Your task to perform on an android device: toggle pop-ups in chrome Image 0: 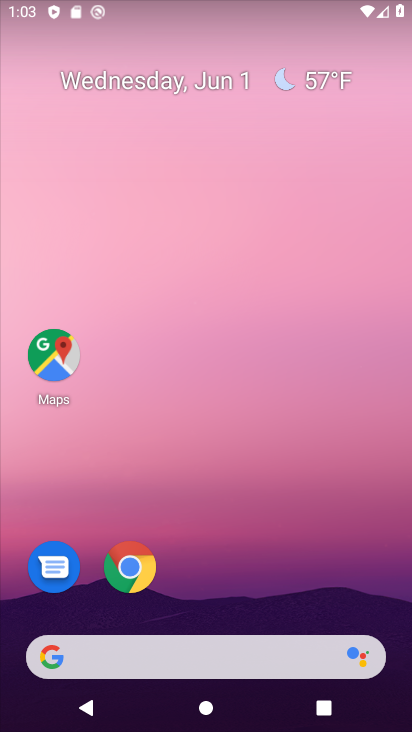
Step 0: click (131, 556)
Your task to perform on an android device: toggle pop-ups in chrome Image 1: 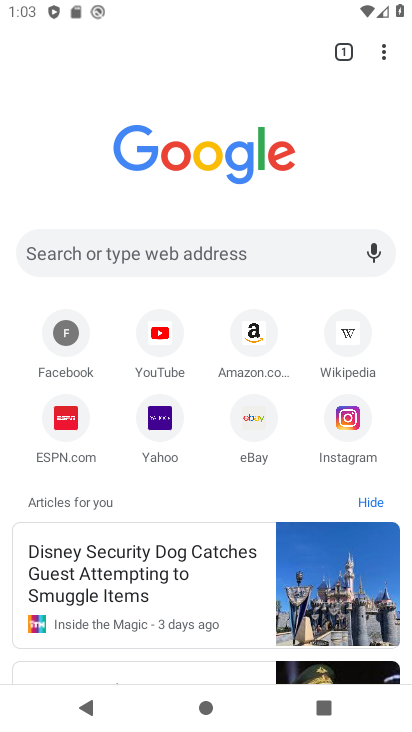
Step 1: click (374, 54)
Your task to perform on an android device: toggle pop-ups in chrome Image 2: 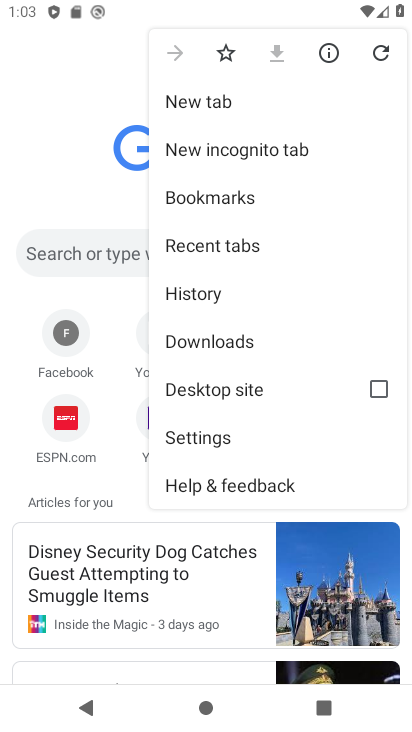
Step 2: click (196, 444)
Your task to perform on an android device: toggle pop-ups in chrome Image 3: 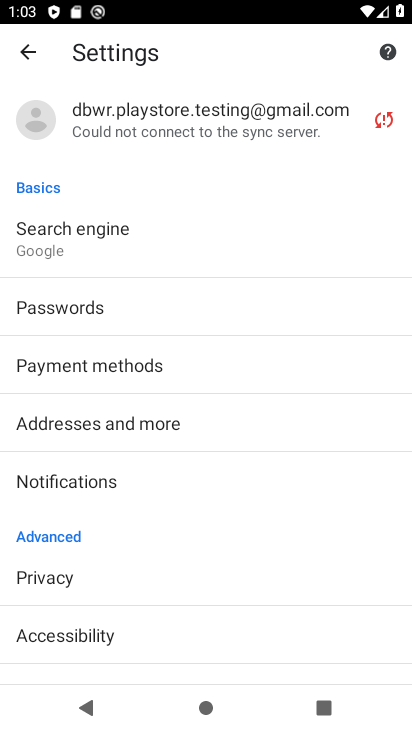
Step 3: drag from (233, 610) to (158, 363)
Your task to perform on an android device: toggle pop-ups in chrome Image 4: 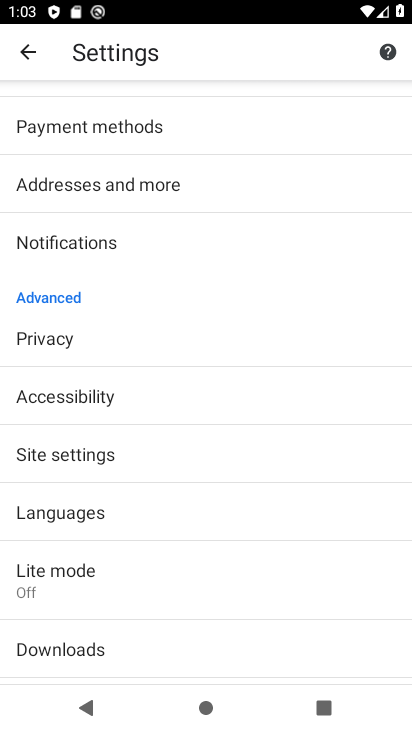
Step 4: click (94, 460)
Your task to perform on an android device: toggle pop-ups in chrome Image 5: 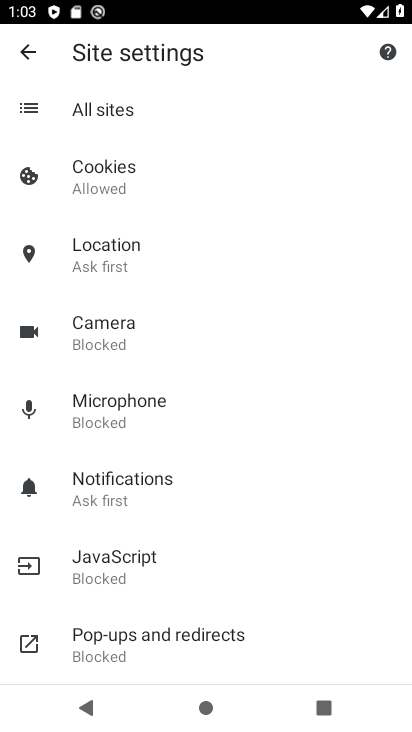
Step 5: click (177, 646)
Your task to perform on an android device: toggle pop-ups in chrome Image 6: 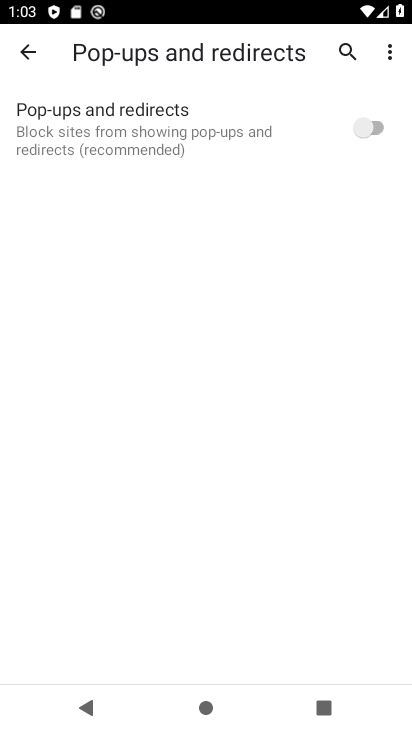
Step 6: click (364, 139)
Your task to perform on an android device: toggle pop-ups in chrome Image 7: 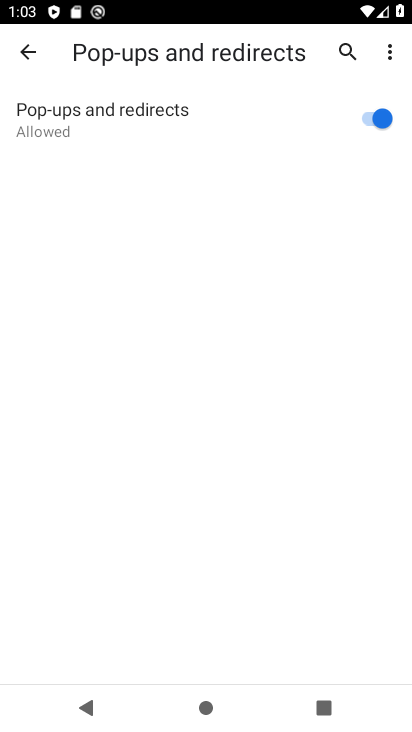
Step 7: task complete